Your task to perform on an android device: toggle javascript in the chrome app Image 0: 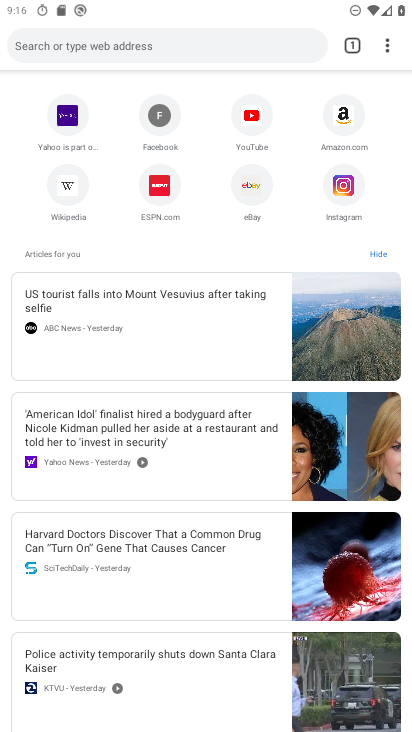
Step 0: press home button
Your task to perform on an android device: toggle javascript in the chrome app Image 1: 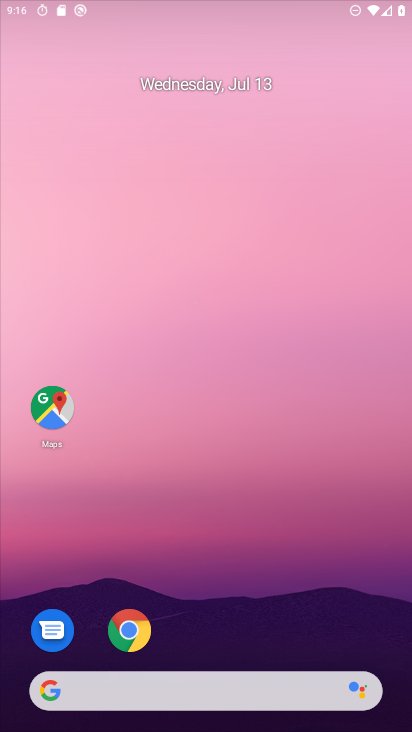
Step 1: drag from (399, 679) to (277, 3)
Your task to perform on an android device: toggle javascript in the chrome app Image 2: 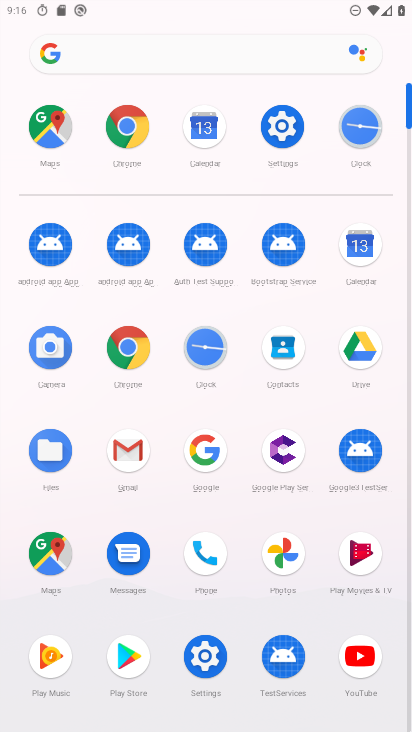
Step 2: click (121, 351)
Your task to perform on an android device: toggle javascript in the chrome app Image 3: 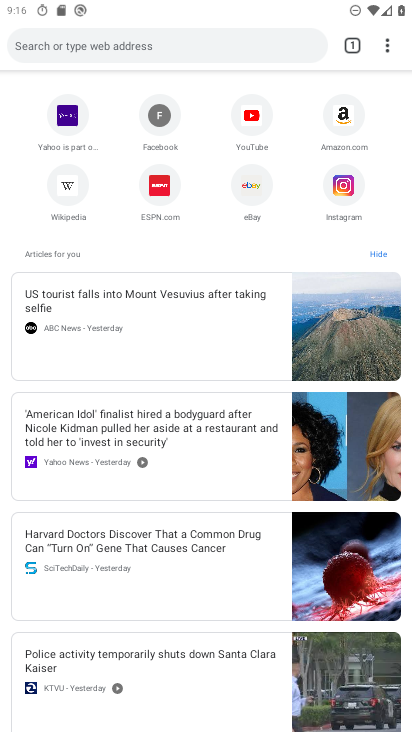
Step 3: click (385, 43)
Your task to perform on an android device: toggle javascript in the chrome app Image 4: 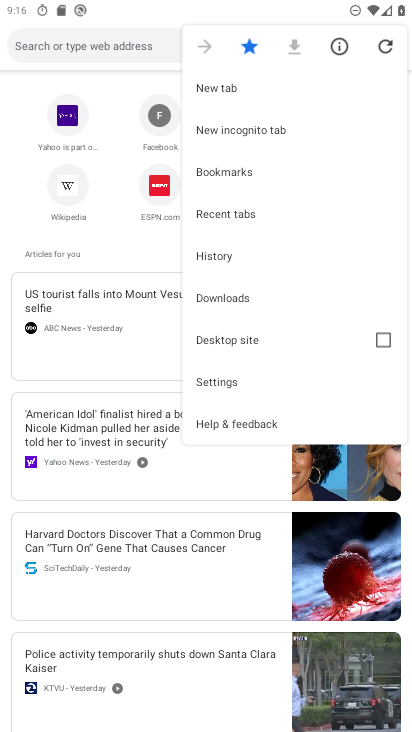
Step 4: click (217, 385)
Your task to perform on an android device: toggle javascript in the chrome app Image 5: 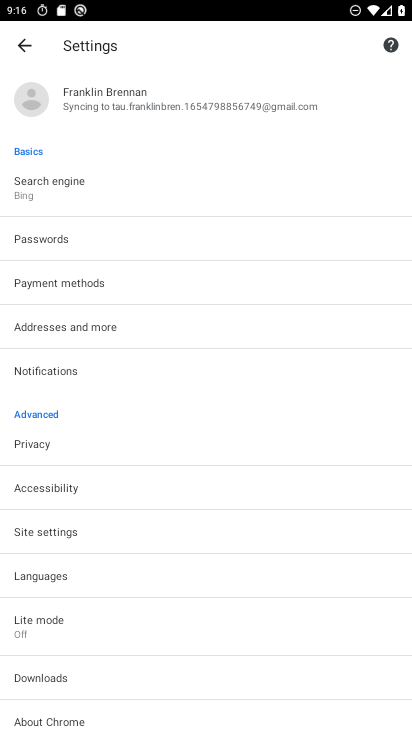
Step 5: click (81, 529)
Your task to perform on an android device: toggle javascript in the chrome app Image 6: 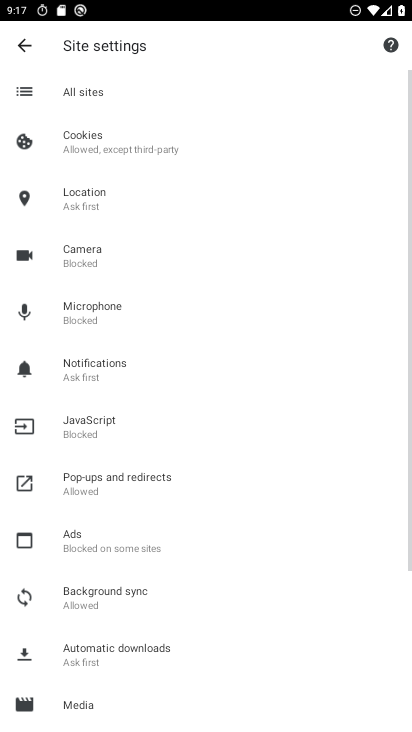
Step 6: click (149, 416)
Your task to perform on an android device: toggle javascript in the chrome app Image 7: 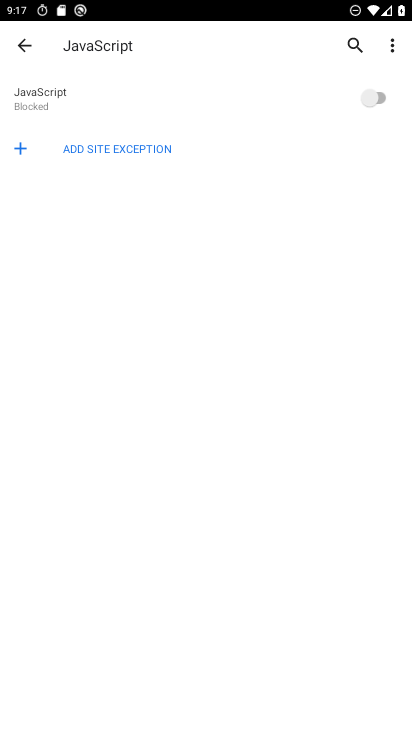
Step 7: click (386, 73)
Your task to perform on an android device: toggle javascript in the chrome app Image 8: 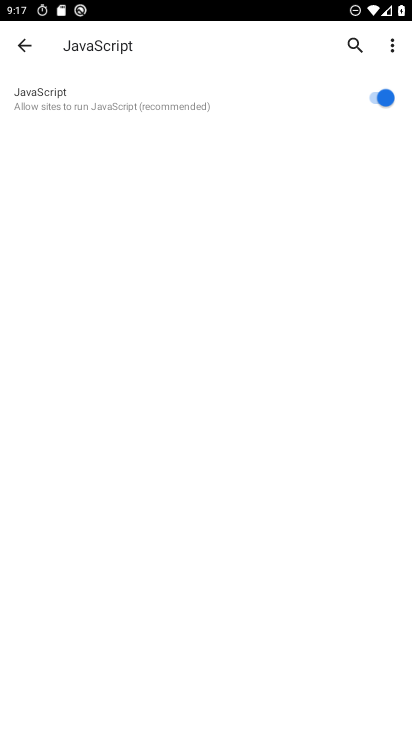
Step 8: task complete